Your task to perform on an android device: Show me recent news Image 0: 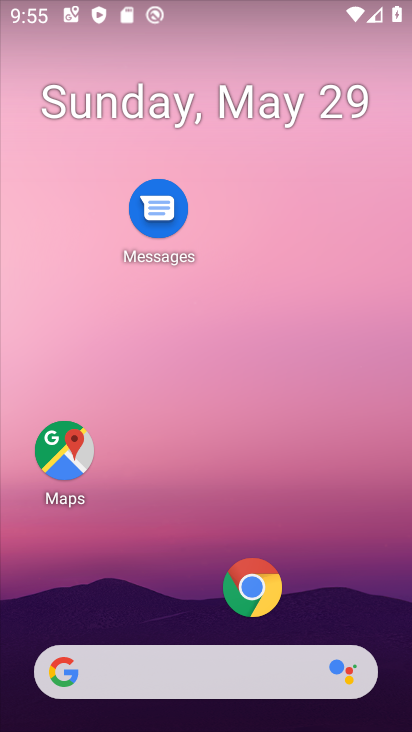
Step 0: click (155, 652)
Your task to perform on an android device: Show me recent news Image 1: 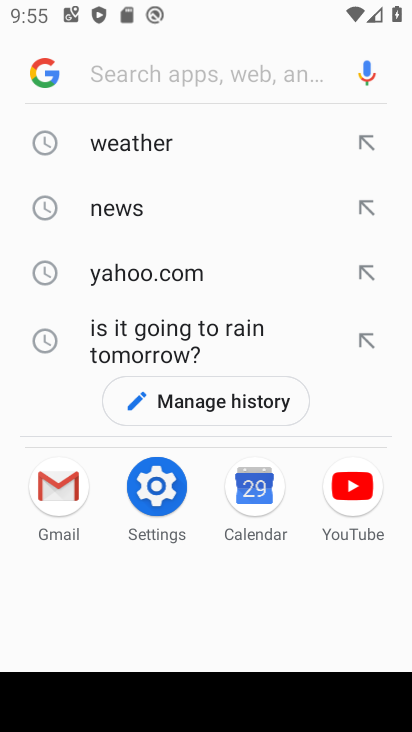
Step 1: click (127, 210)
Your task to perform on an android device: Show me recent news Image 2: 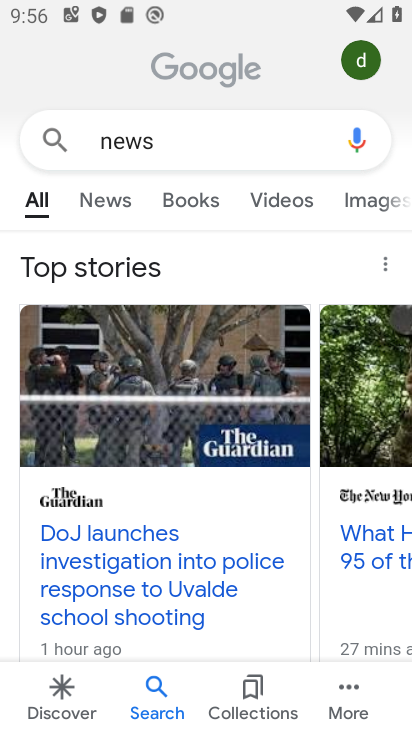
Step 2: task complete